Your task to perform on an android device: check the backup settings in the google photos Image 0: 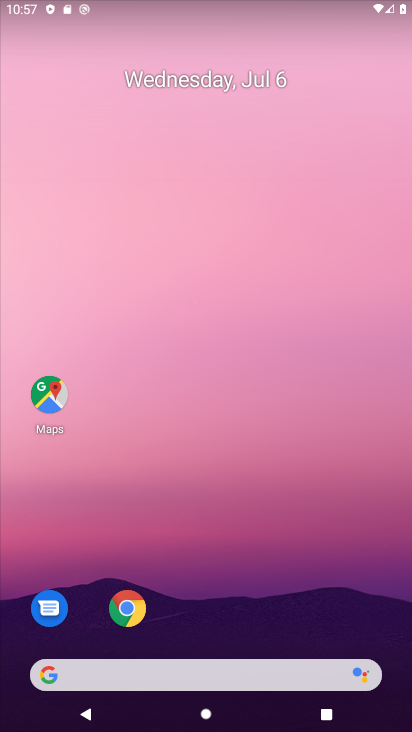
Step 0: drag from (256, 639) to (221, 24)
Your task to perform on an android device: check the backup settings in the google photos Image 1: 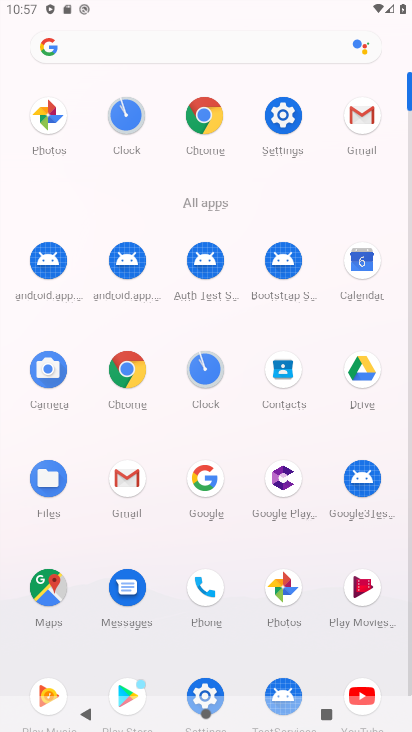
Step 1: click (287, 576)
Your task to perform on an android device: check the backup settings in the google photos Image 2: 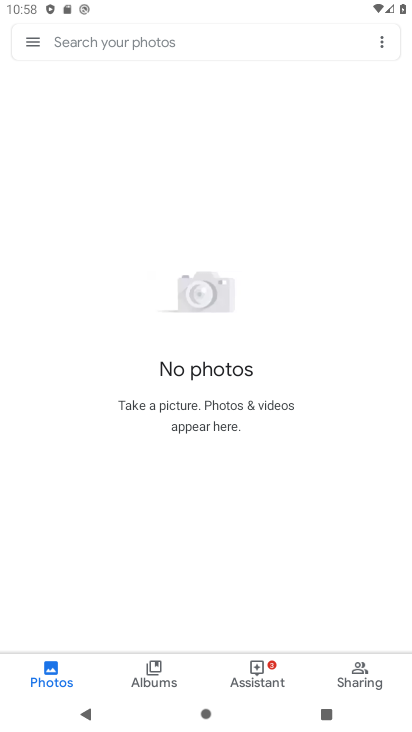
Step 2: click (28, 47)
Your task to perform on an android device: check the backup settings in the google photos Image 3: 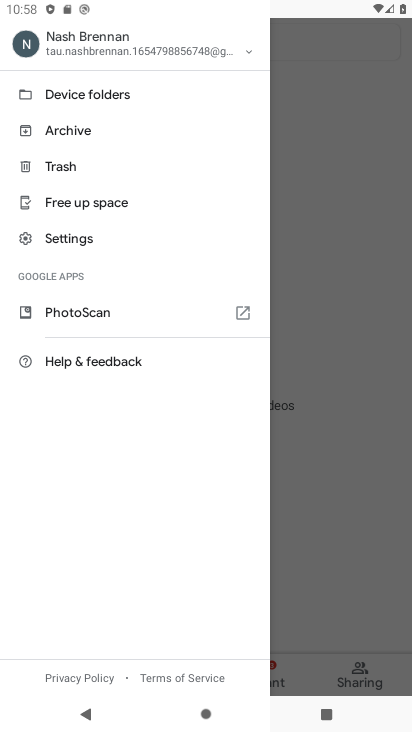
Step 3: click (70, 63)
Your task to perform on an android device: check the backup settings in the google photos Image 4: 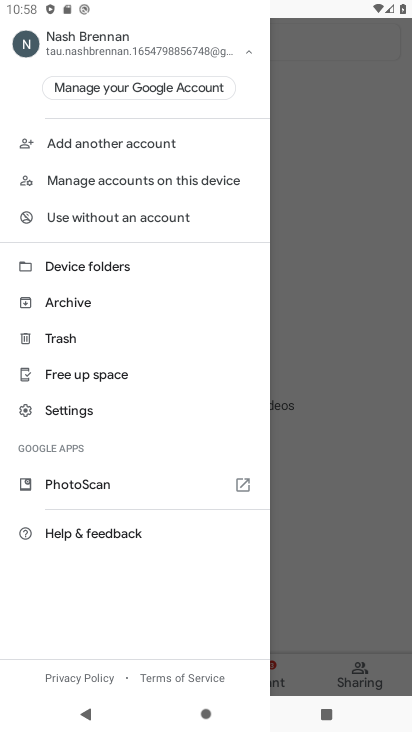
Step 4: click (70, 63)
Your task to perform on an android device: check the backup settings in the google photos Image 5: 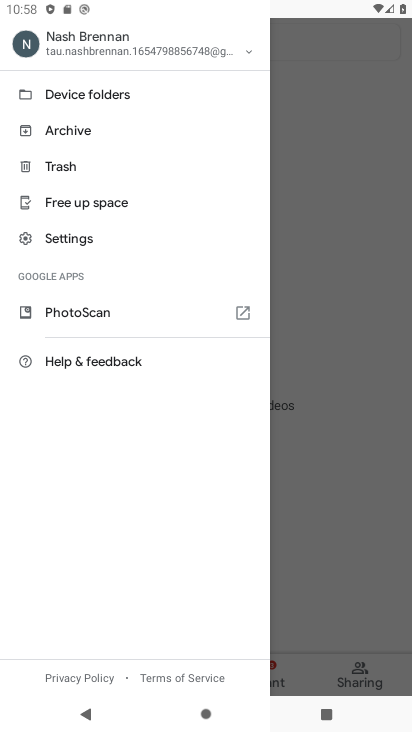
Step 5: drag from (50, 394) to (61, 699)
Your task to perform on an android device: check the backup settings in the google photos Image 6: 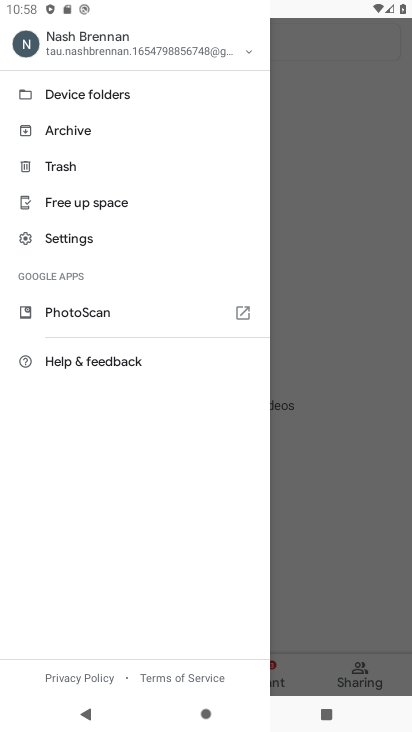
Step 6: click (46, 232)
Your task to perform on an android device: check the backup settings in the google photos Image 7: 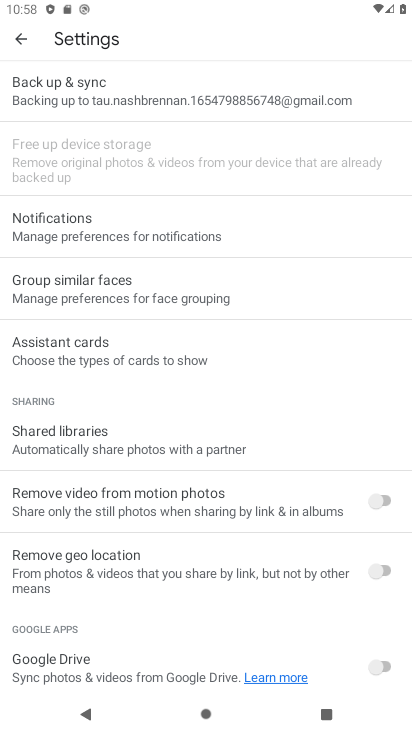
Step 7: click (72, 77)
Your task to perform on an android device: check the backup settings in the google photos Image 8: 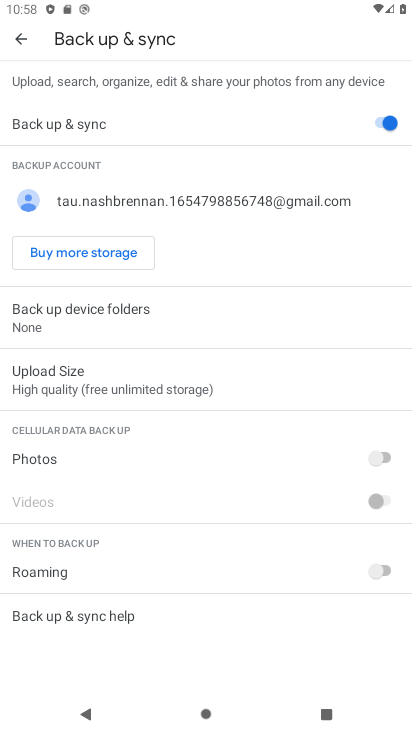
Step 8: task complete